Your task to perform on an android device: Empty the shopping cart on walmart. Image 0: 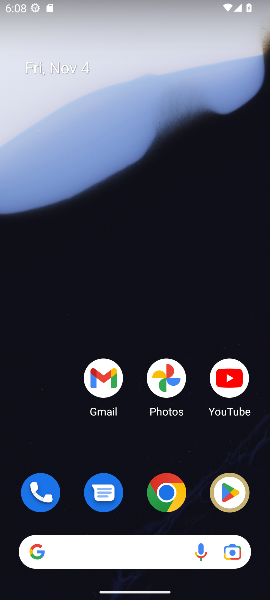
Step 0: drag from (131, 449) to (154, 20)
Your task to perform on an android device: Empty the shopping cart on walmart. Image 1: 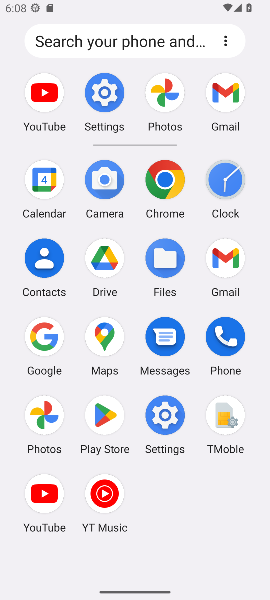
Step 1: click (171, 180)
Your task to perform on an android device: Empty the shopping cart on walmart. Image 2: 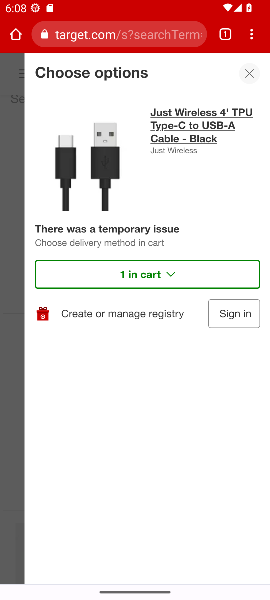
Step 2: click (153, 33)
Your task to perform on an android device: Empty the shopping cart on walmart. Image 3: 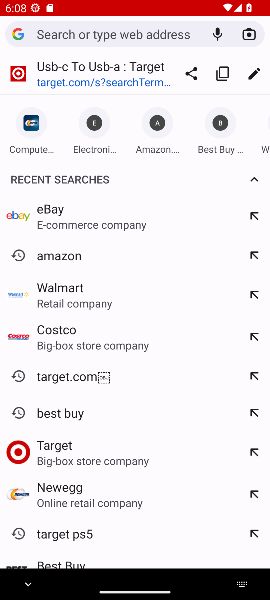
Step 3: type "walmart.com"
Your task to perform on an android device: Empty the shopping cart on walmart. Image 4: 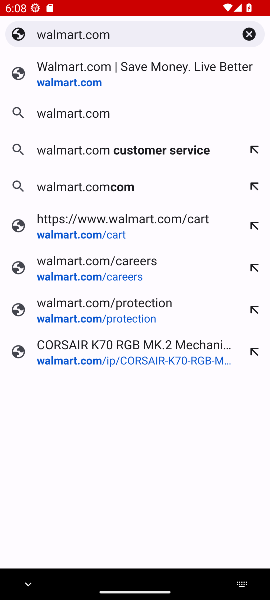
Step 4: press enter
Your task to perform on an android device: Empty the shopping cart on walmart. Image 5: 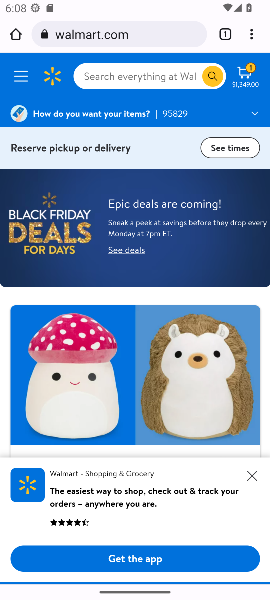
Step 5: click (246, 64)
Your task to perform on an android device: Empty the shopping cart on walmart. Image 6: 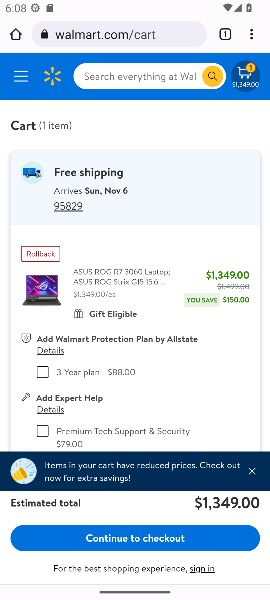
Step 6: drag from (205, 430) to (219, 152)
Your task to perform on an android device: Empty the shopping cart on walmart. Image 7: 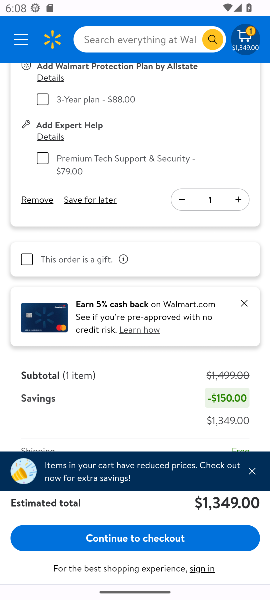
Step 7: click (34, 195)
Your task to perform on an android device: Empty the shopping cart on walmart. Image 8: 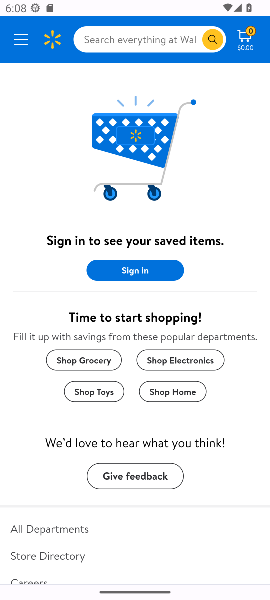
Step 8: task complete